Your task to perform on an android device: Go to notification settings Image 0: 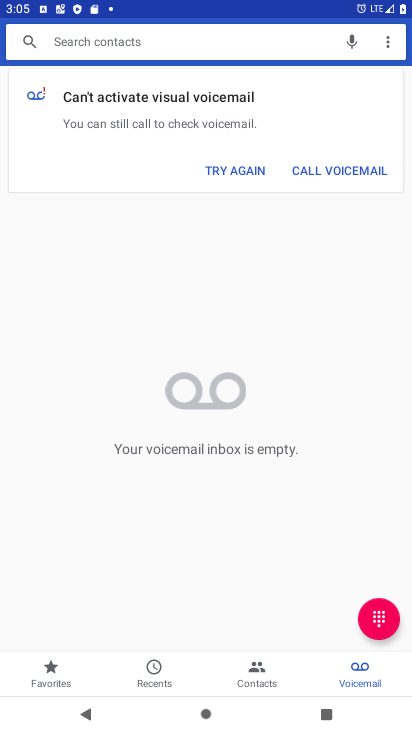
Step 0: press home button
Your task to perform on an android device: Go to notification settings Image 1: 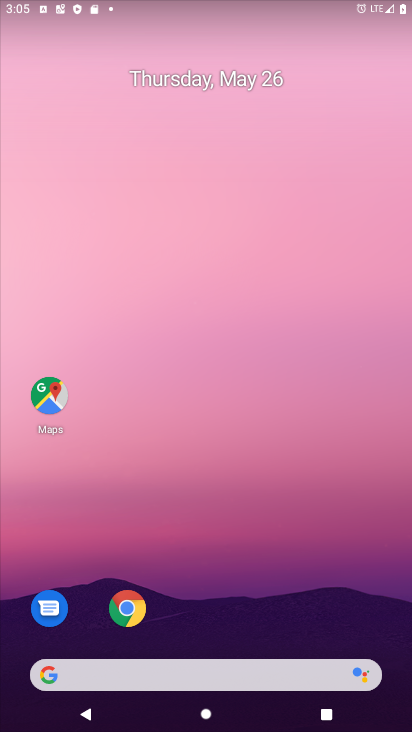
Step 1: drag from (374, 652) to (326, 176)
Your task to perform on an android device: Go to notification settings Image 2: 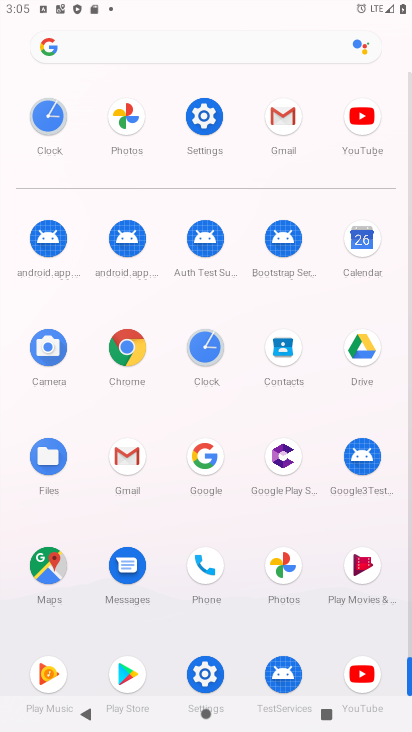
Step 2: click (200, 673)
Your task to perform on an android device: Go to notification settings Image 3: 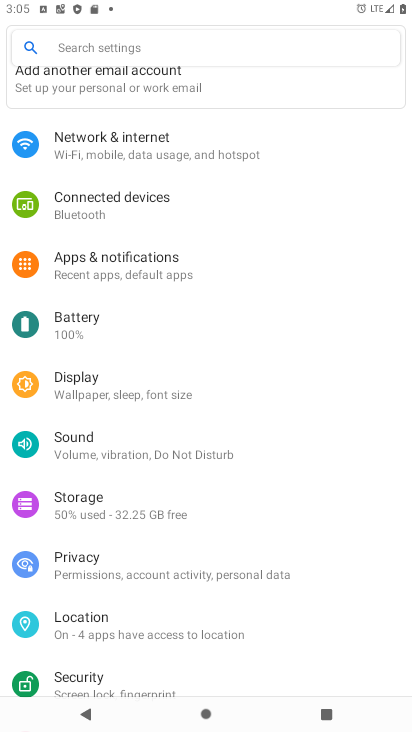
Step 3: click (121, 269)
Your task to perform on an android device: Go to notification settings Image 4: 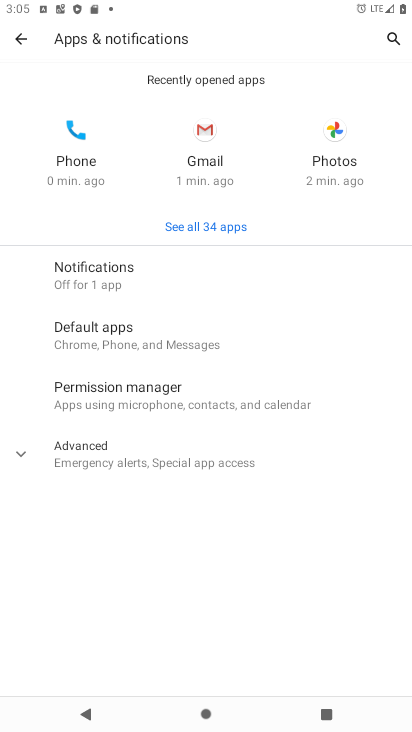
Step 4: click (120, 272)
Your task to perform on an android device: Go to notification settings Image 5: 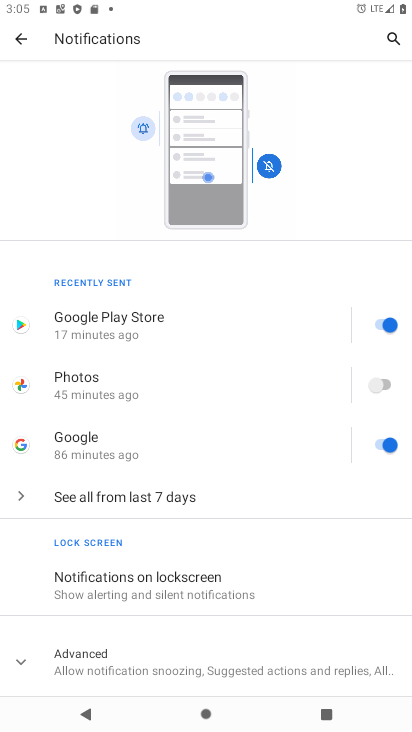
Step 5: task complete